Your task to perform on an android device: Open maps Image 0: 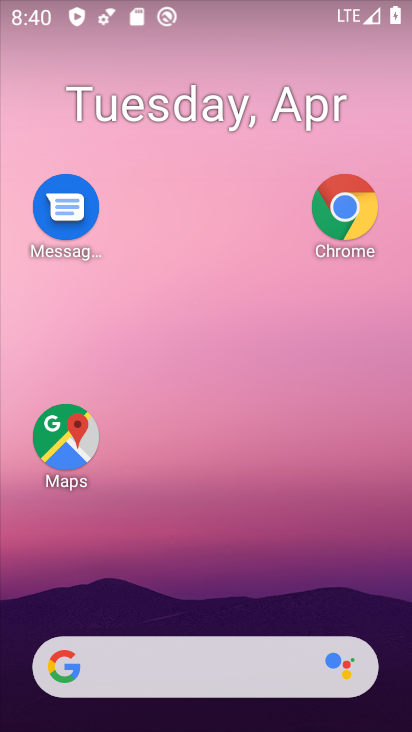
Step 0: click (77, 451)
Your task to perform on an android device: Open maps Image 1: 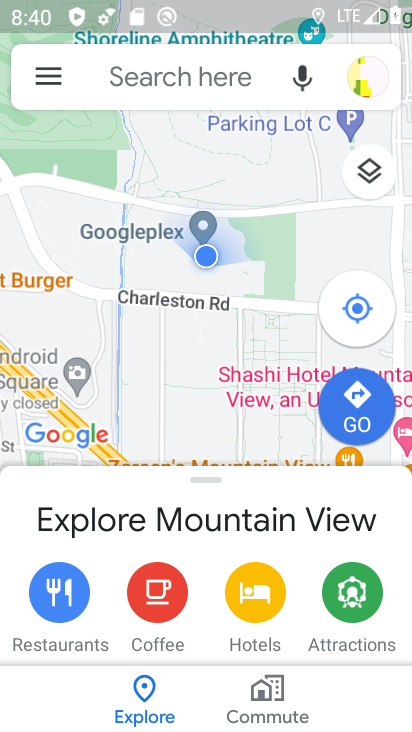
Step 1: task complete